Your task to perform on an android device: see creations saved in the google photos Image 0: 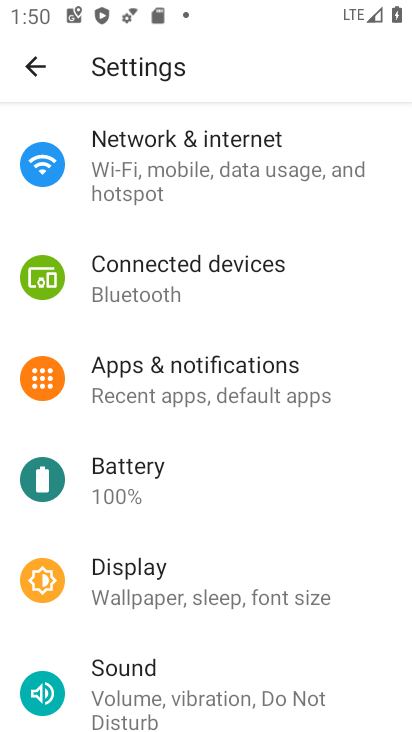
Step 0: press home button
Your task to perform on an android device: see creations saved in the google photos Image 1: 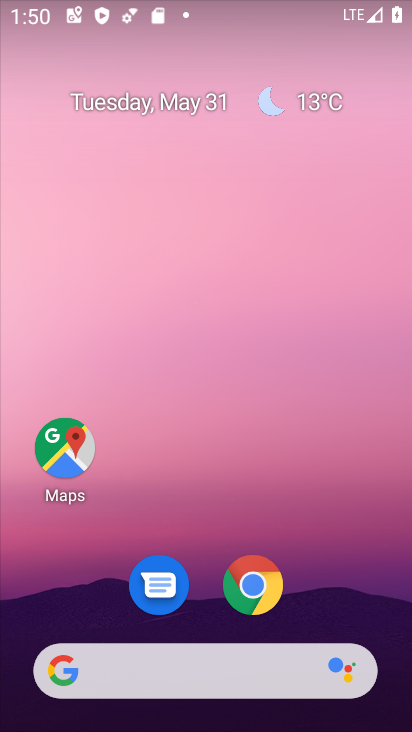
Step 1: drag from (208, 509) to (202, 2)
Your task to perform on an android device: see creations saved in the google photos Image 2: 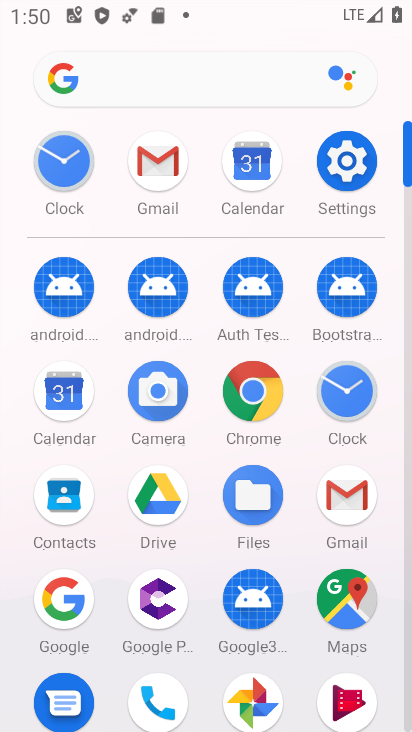
Step 2: click (259, 681)
Your task to perform on an android device: see creations saved in the google photos Image 3: 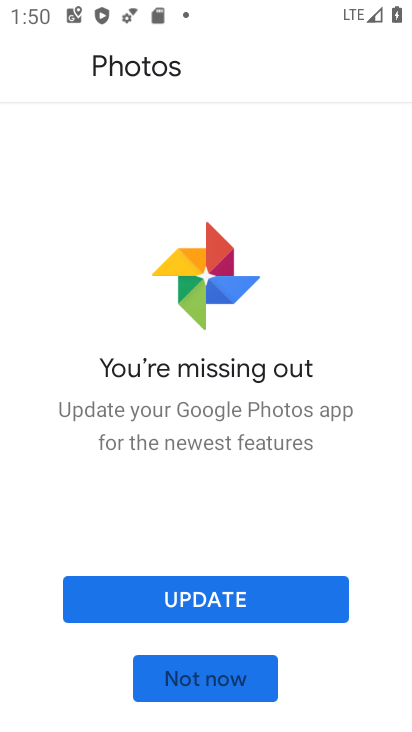
Step 3: click (239, 678)
Your task to perform on an android device: see creations saved in the google photos Image 4: 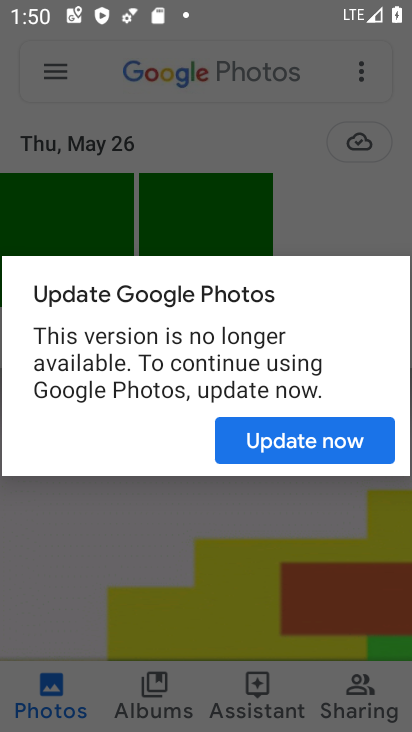
Step 4: click (316, 439)
Your task to perform on an android device: see creations saved in the google photos Image 5: 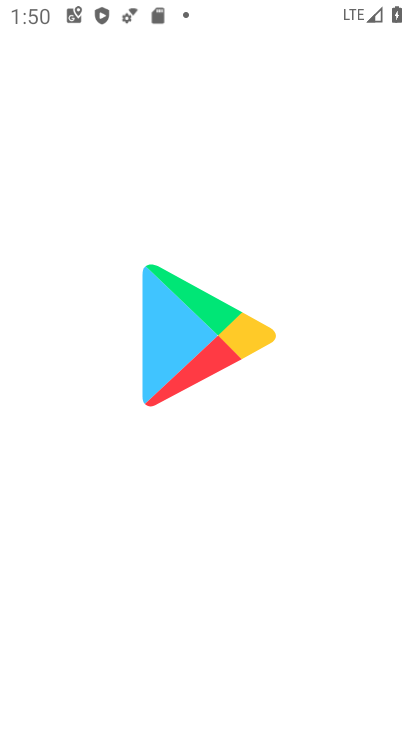
Step 5: click (231, 61)
Your task to perform on an android device: see creations saved in the google photos Image 6: 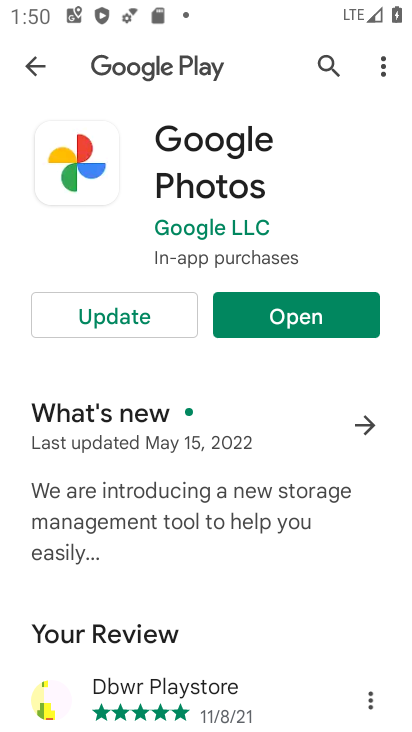
Step 6: click (302, 287)
Your task to perform on an android device: see creations saved in the google photos Image 7: 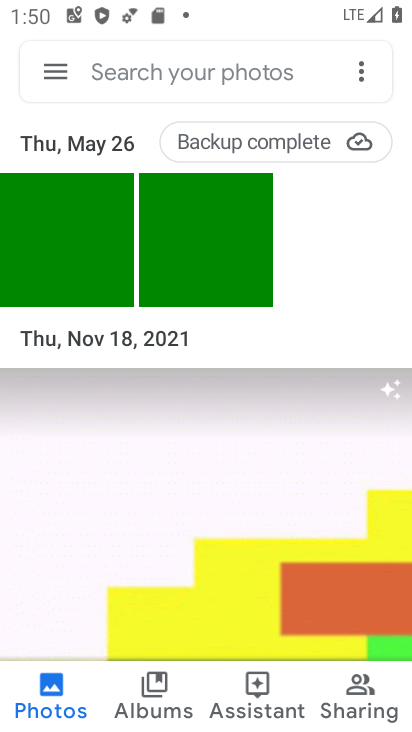
Step 7: click (256, 59)
Your task to perform on an android device: see creations saved in the google photos Image 8: 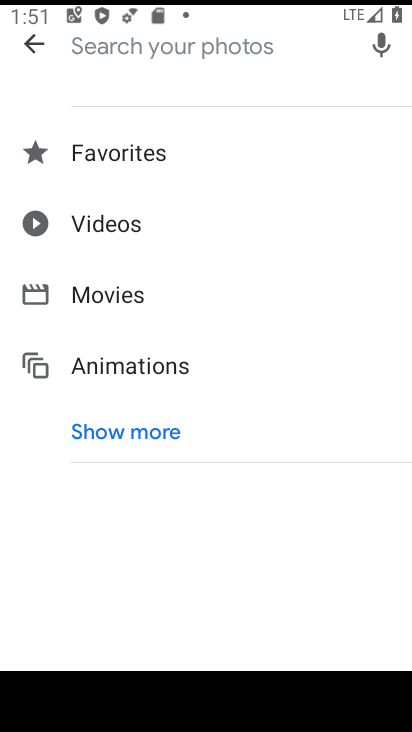
Step 8: click (131, 421)
Your task to perform on an android device: see creations saved in the google photos Image 9: 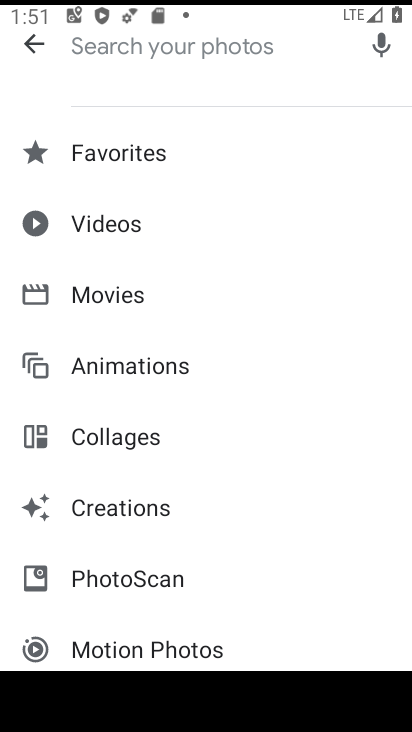
Step 9: click (114, 499)
Your task to perform on an android device: see creations saved in the google photos Image 10: 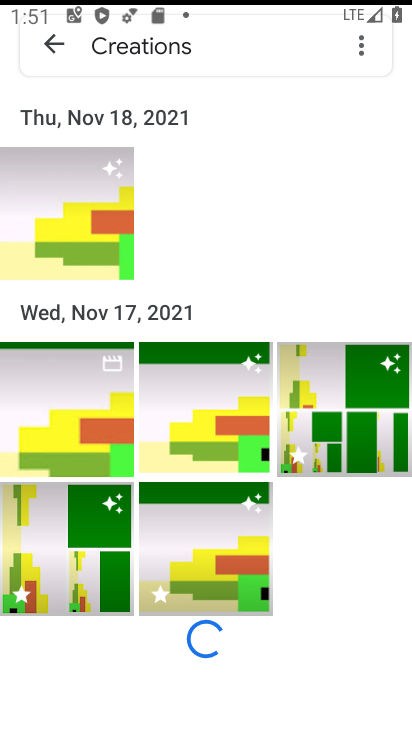
Step 10: task complete